Your task to perform on an android device: Open the Play Movies app and select the watchlist tab. Image 0: 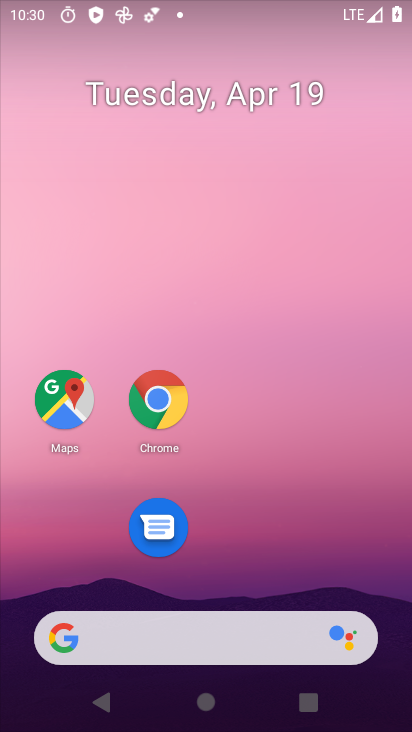
Step 0: drag from (267, 642) to (343, 246)
Your task to perform on an android device: Open the Play Movies app and select the watchlist tab. Image 1: 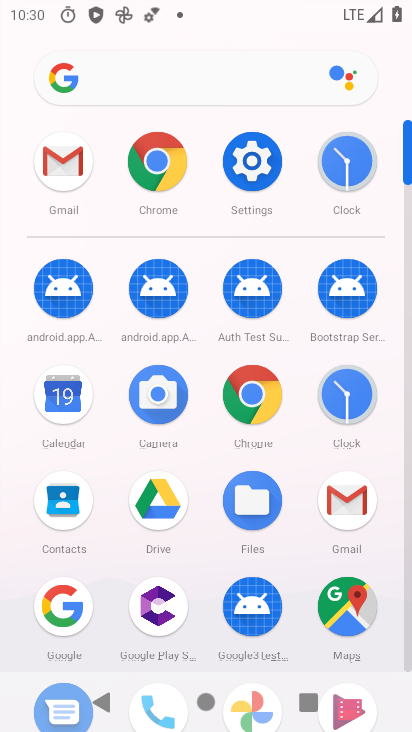
Step 1: drag from (201, 439) to (179, 320)
Your task to perform on an android device: Open the Play Movies app and select the watchlist tab. Image 2: 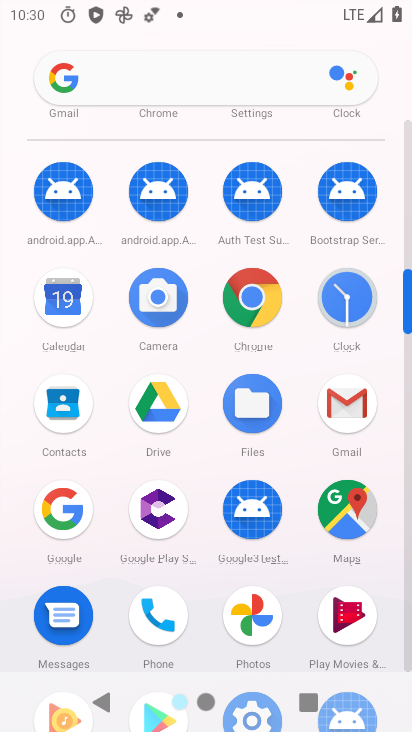
Step 2: click (336, 613)
Your task to perform on an android device: Open the Play Movies app and select the watchlist tab. Image 3: 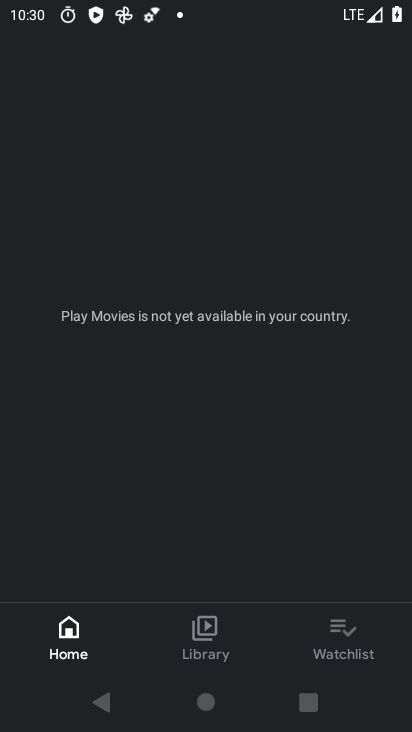
Step 3: click (319, 633)
Your task to perform on an android device: Open the Play Movies app and select the watchlist tab. Image 4: 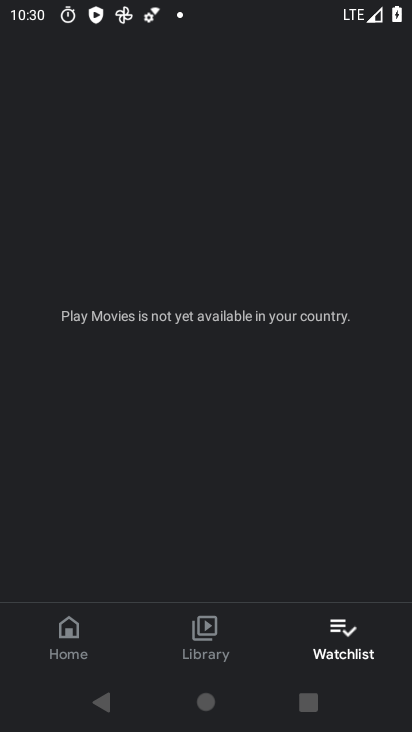
Step 4: task complete